Your task to perform on an android device: turn off smart reply in the gmail app Image 0: 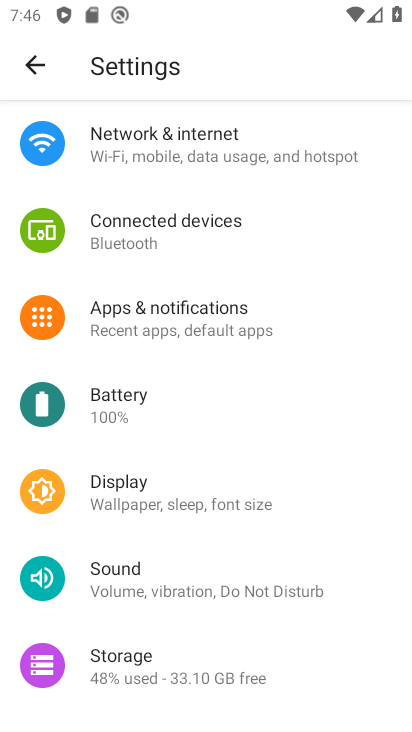
Step 0: press home button
Your task to perform on an android device: turn off smart reply in the gmail app Image 1: 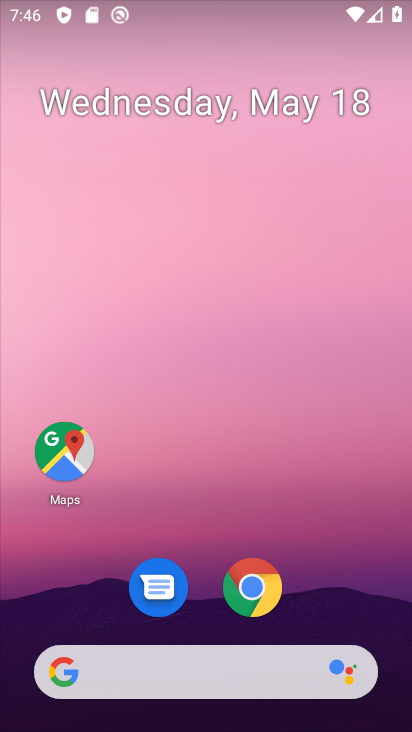
Step 1: drag from (198, 596) to (251, 168)
Your task to perform on an android device: turn off smart reply in the gmail app Image 2: 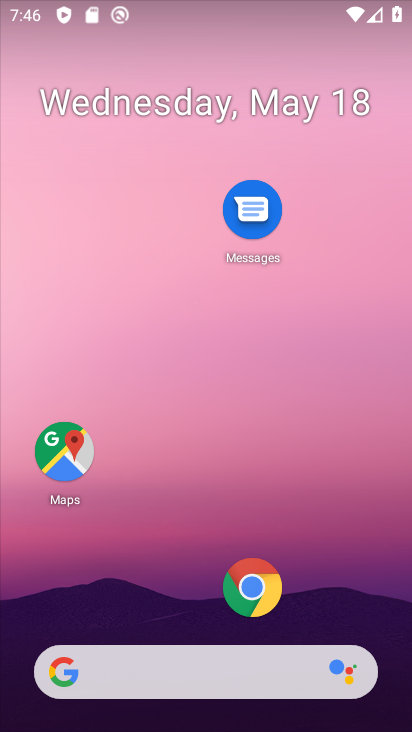
Step 2: drag from (203, 575) to (208, 156)
Your task to perform on an android device: turn off smart reply in the gmail app Image 3: 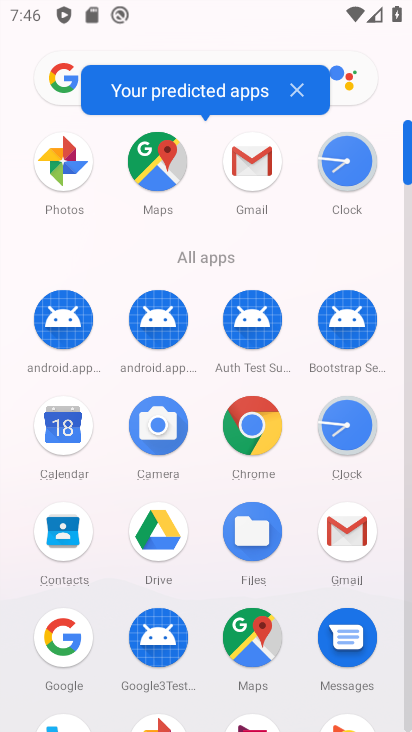
Step 3: click (249, 165)
Your task to perform on an android device: turn off smart reply in the gmail app Image 4: 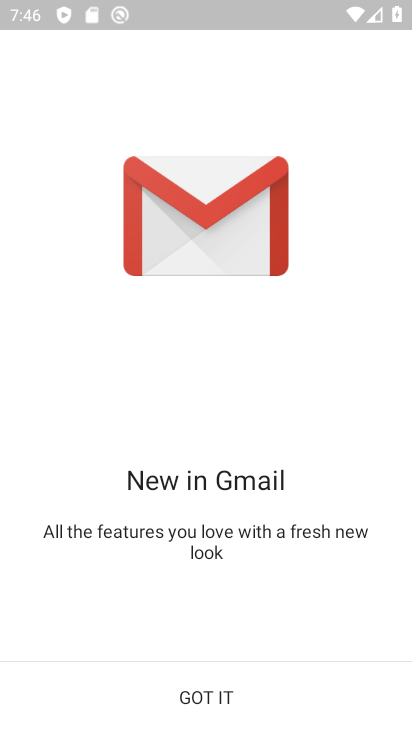
Step 4: click (189, 694)
Your task to perform on an android device: turn off smart reply in the gmail app Image 5: 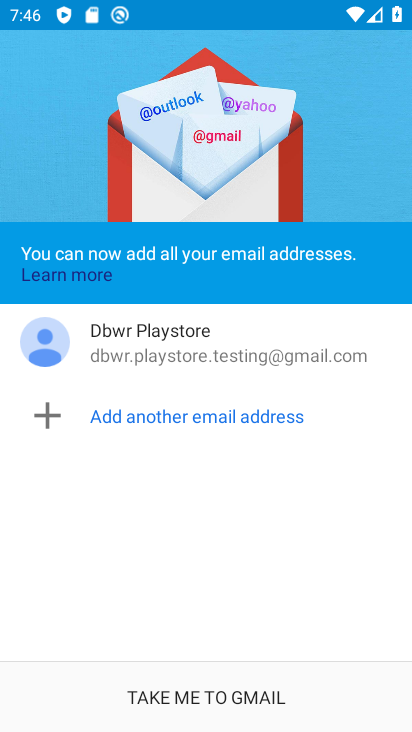
Step 5: click (189, 694)
Your task to perform on an android device: turn off smart reply in the gmail app Image 6: 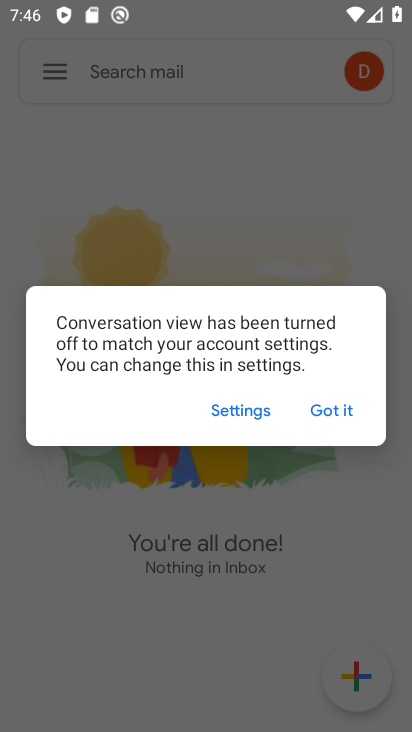
Step 6: click (322, 413)
Your task to perform on an android device: turn off smart reply in the gmail app Image 7: 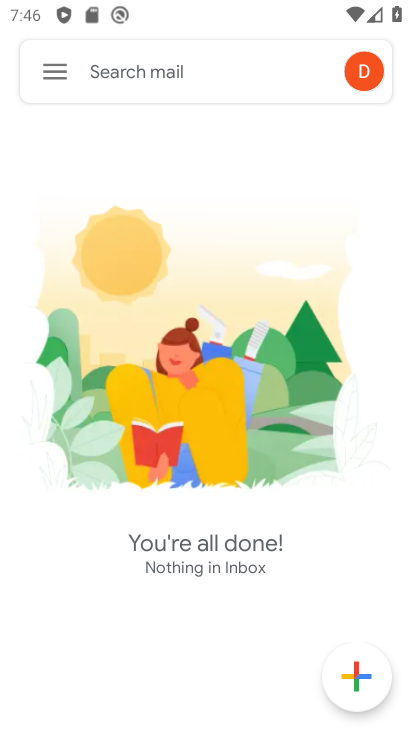
Step 7: click (51, 71)
Your task to perform on an android device: turn off smart reply in the gmail app Image 8: 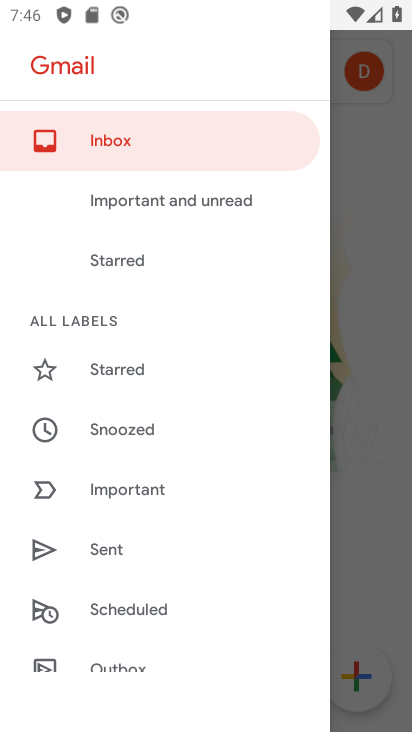
Step 8: drag from (145, 614) to (323, 4)
Your task to perform on an android device: turn off smart reply in the gmail app Image 9: 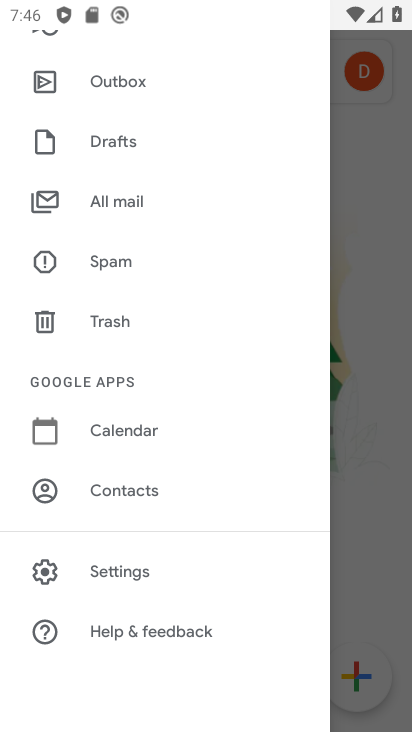
Step 9: click (133, 549)
Your task to perform on an android device: turn off smart reply in the gmail app Image 10: 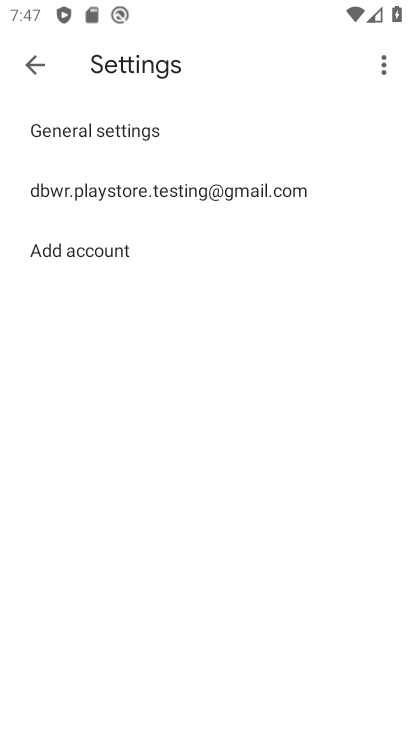
Step 10: click (165, 202)
Your task to perform on an android device: turn off smart reply in the gmail app Image 11: 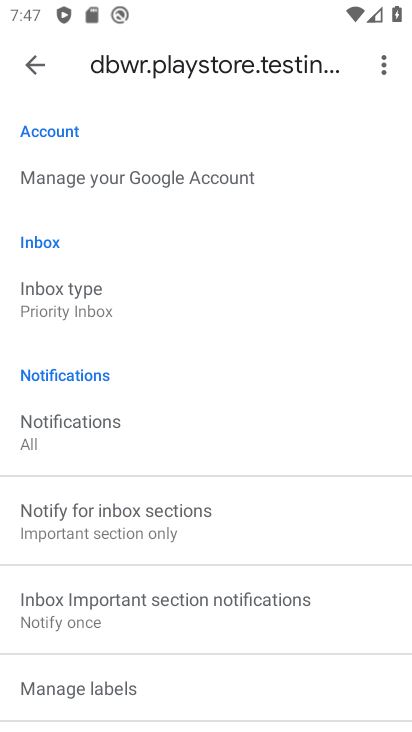
Step 11: drag from (321, 497) to (333, 209)
Your task to perform on an android device: turn off smart reply in the gmail app Image 12: 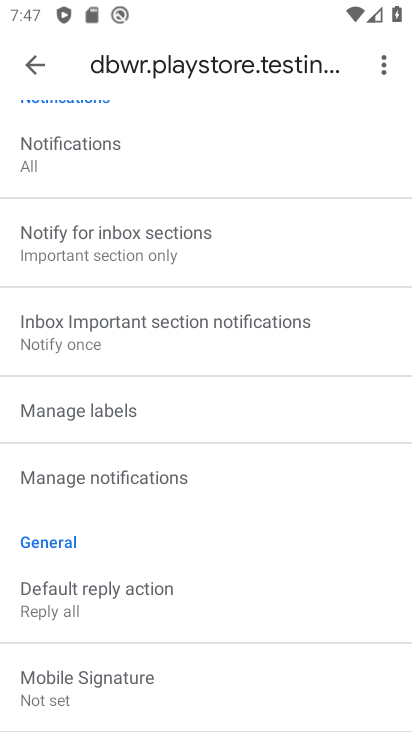
Step 12: drag from (228, 550) to (250, 361)
Your task to perform on an android device: turn off smart reply in the gmail app Image 13: 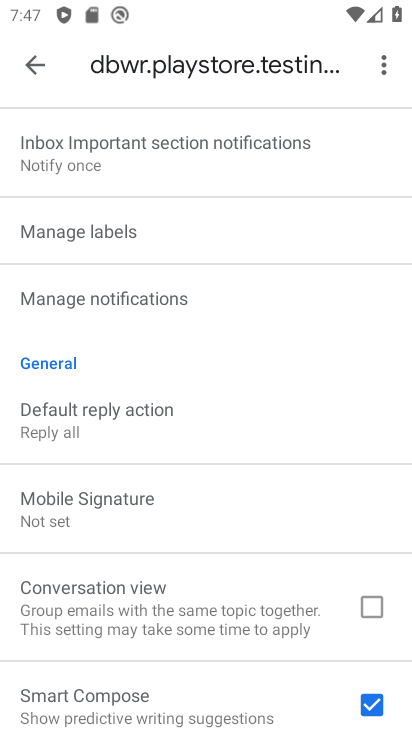
Step 13: drag from (263, 487) to (308, 211)
Your task to perform on an android device: turn off smart reply in the gmail app Image 14: 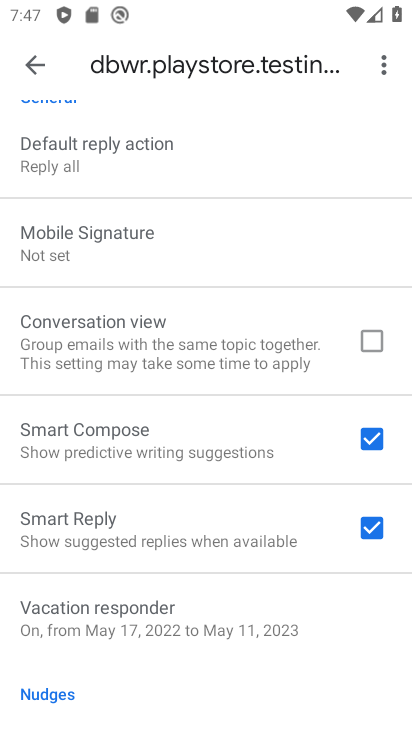
Step 14: click (378, 531)
Your task to perform on an android device: turn off smart reply in the gmail app Image 15: 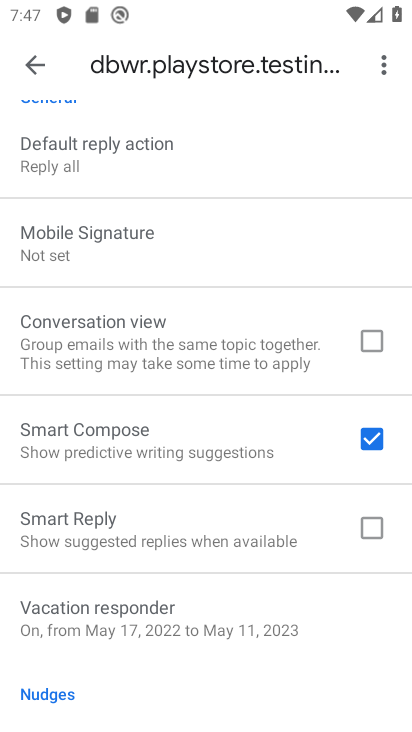
Step 15: task complete